Your task to perform on an android device: turn off location history Image 0: 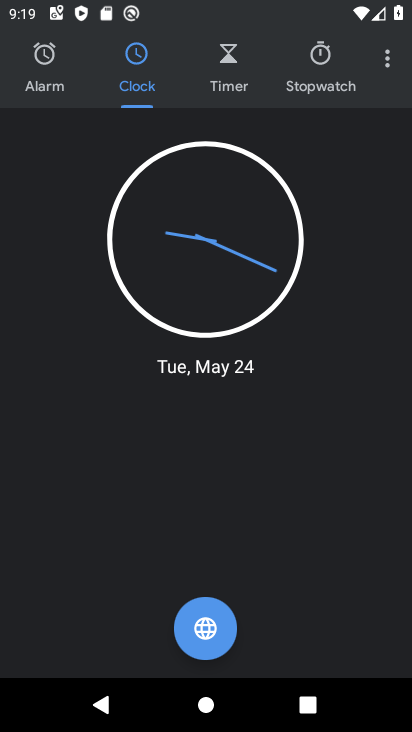
Step 0: drag from (286, 463) to (232, 68)
Your task to perform on an android device: turn off location history Image 1: 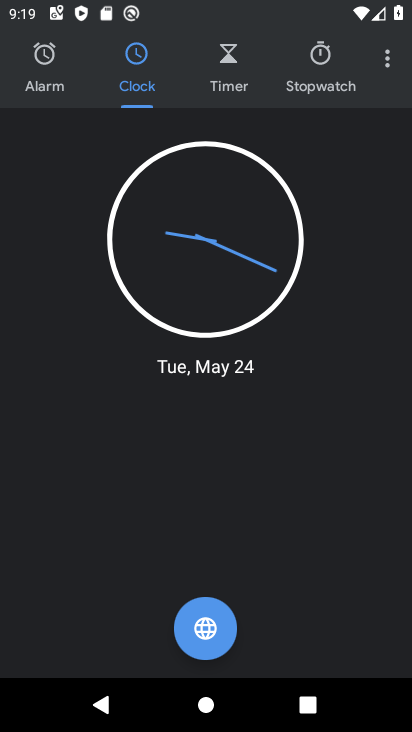
Step 1: press home button
Your task to perform on an android device: turn off location history Image 2: 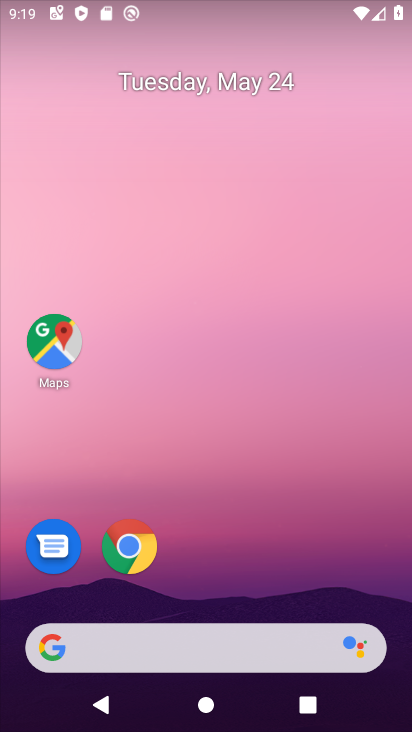
Step 2: drag from (281, 499) to (265, 47)
Your task to perform on an android device: turn off location history Image 3: 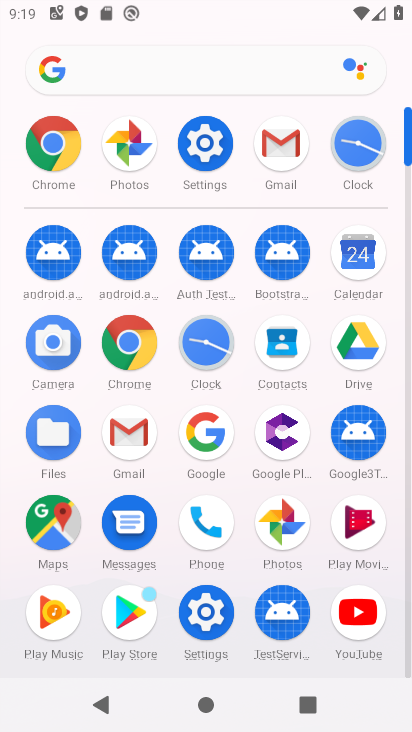
Step 3: click (211, 140)
Your task to perform on an android device: turn off location history Image 4: 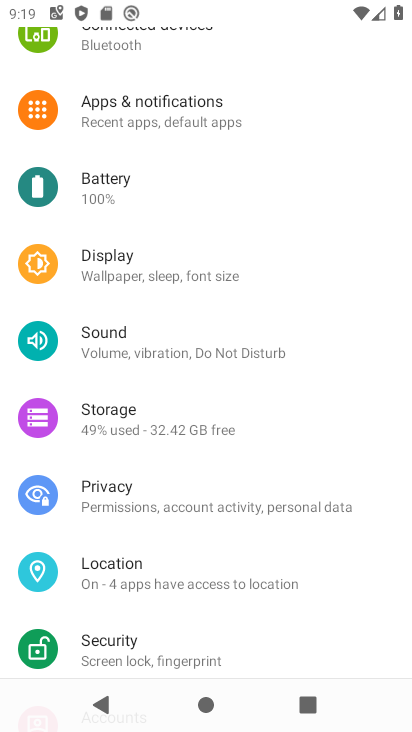
Step 4: click (197, 572)
Your task to perform on an android device: turn off location history Image 5: 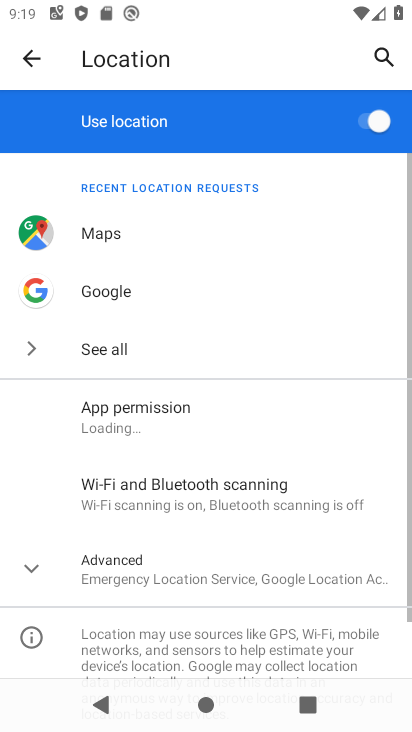
Step 5: drag from (201, 549) to (216, 262)
Your task to perform on an android device: turn off location history Image 6: 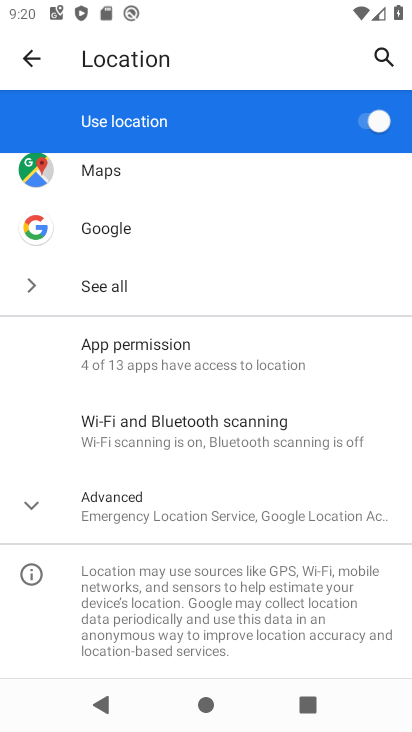
Step 6: click (26, 501)
Your task to perform on an android device: turn off location history Image 7: 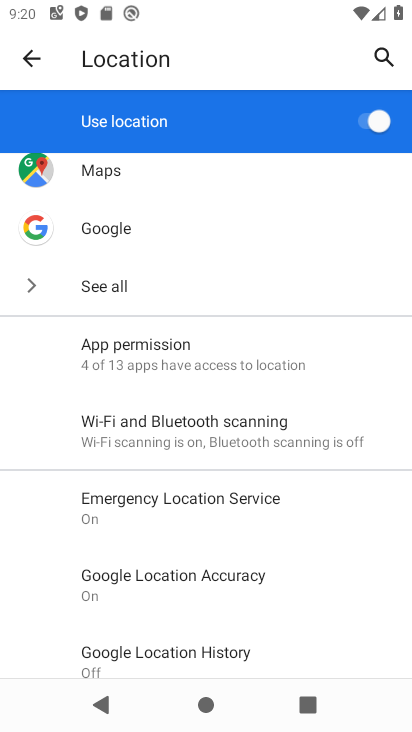
Step 7: task complete